Your task to perform on an android device: Go to Android settings Image 0: 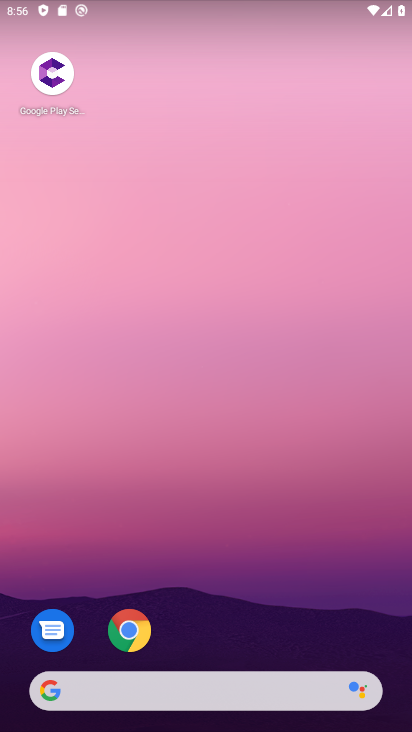
Step 0: drag from (180, 668) to (261, 174)
Your task to perform on an android device: Go to Android settings Image 1: 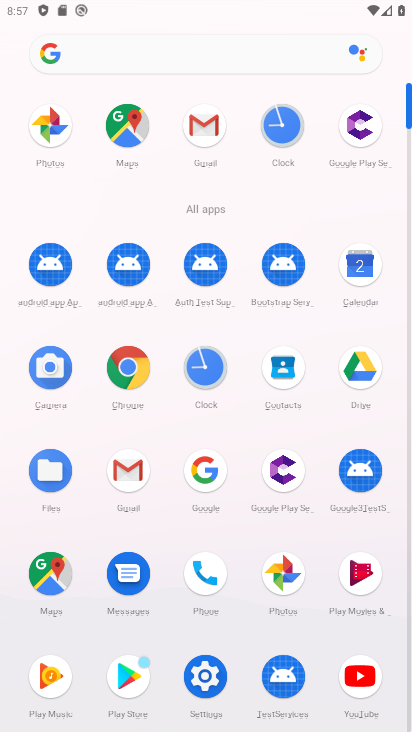
Step 1: click (196, 691)
Your task to perform on an android device: Go to Android settings Image 2: 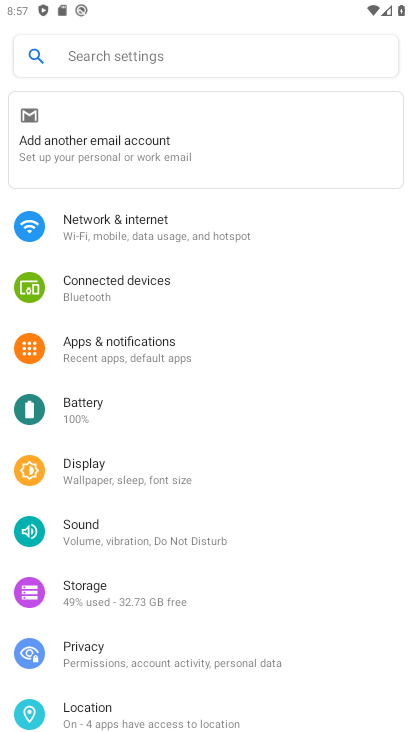
Step 2: task complete